Your task to perform on an android device: open app "HBO Max: Stream TV & Movies" (install if not already installed) and go to login screen Image 0: 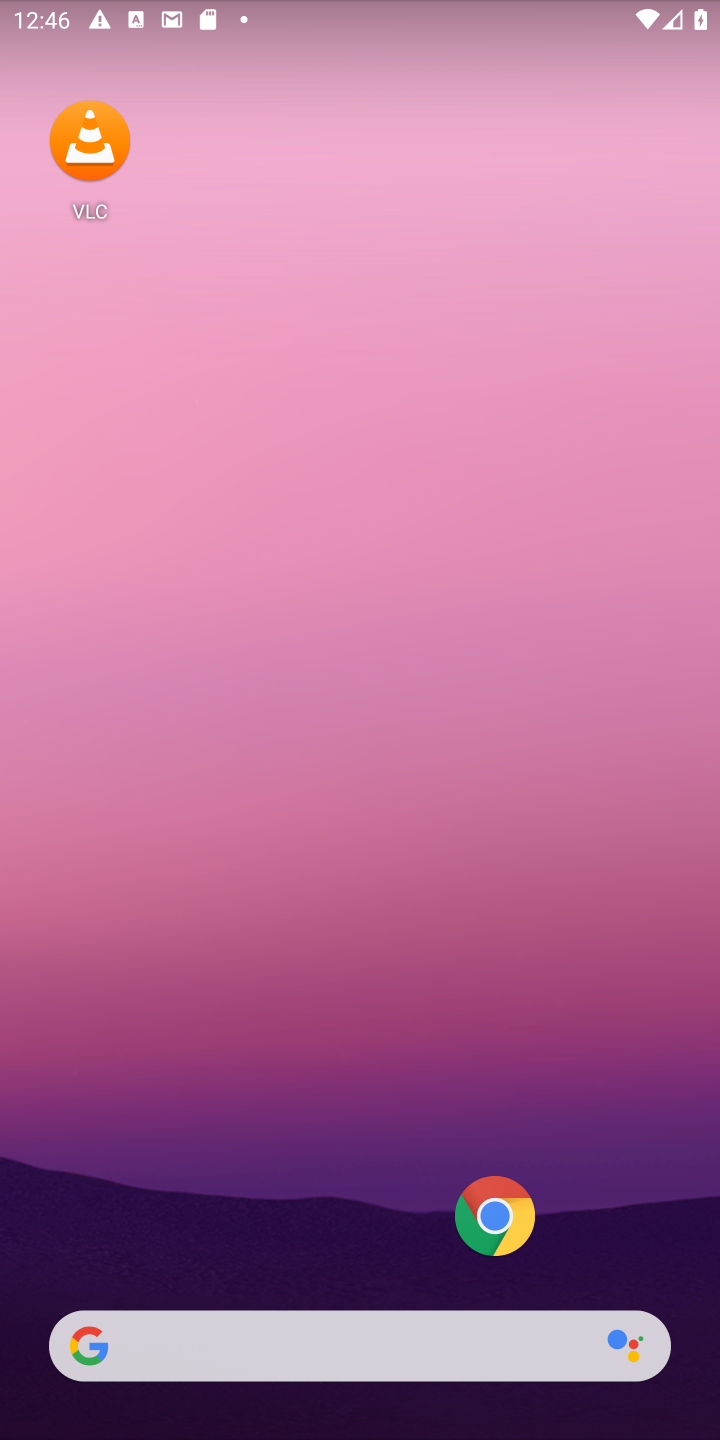
Step 0: drag from (241, 1330) to (711, 668)
Your task to perform on an android device: open app "HBO Max: Stream TV & Movies" (install if not already installed) and go to login screen Image 1: 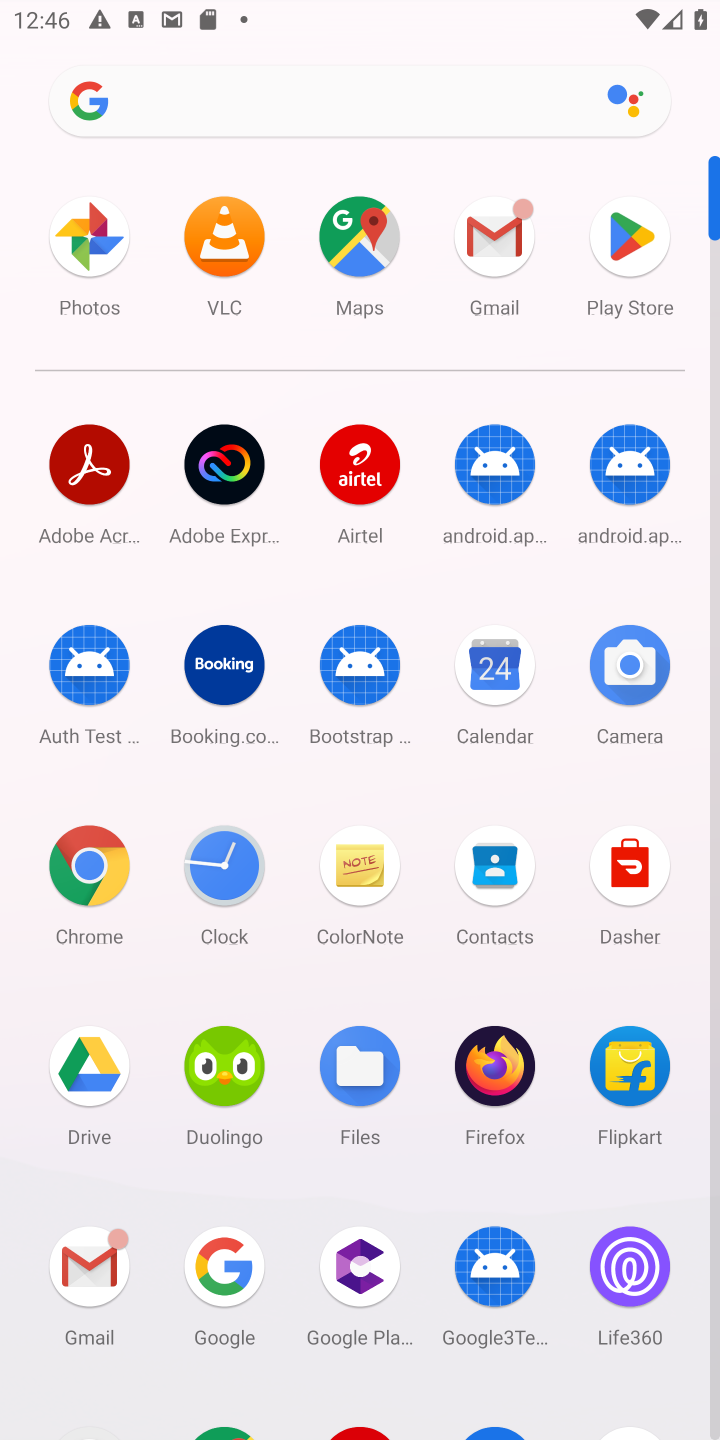
Step 1: click (624, 251)
Your task to perform on an android device: open app "HBO Max: Stream TV & Movies" (install if not already installed) and go to login screen Image 2: 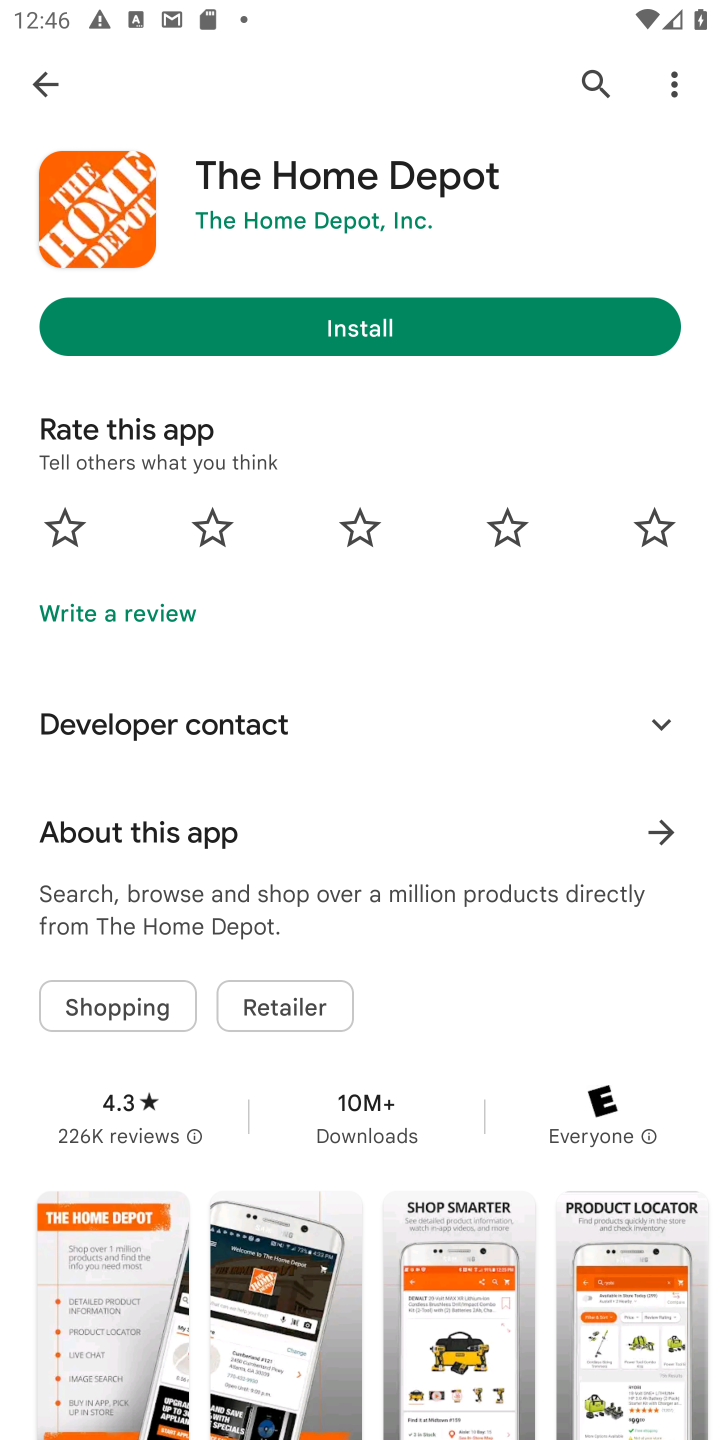
Step 2: press back button
Your task to perform on an android device: open app "HBO Max: Stream TV & Movies" (install if not already installed) and go to login screen Image 3: 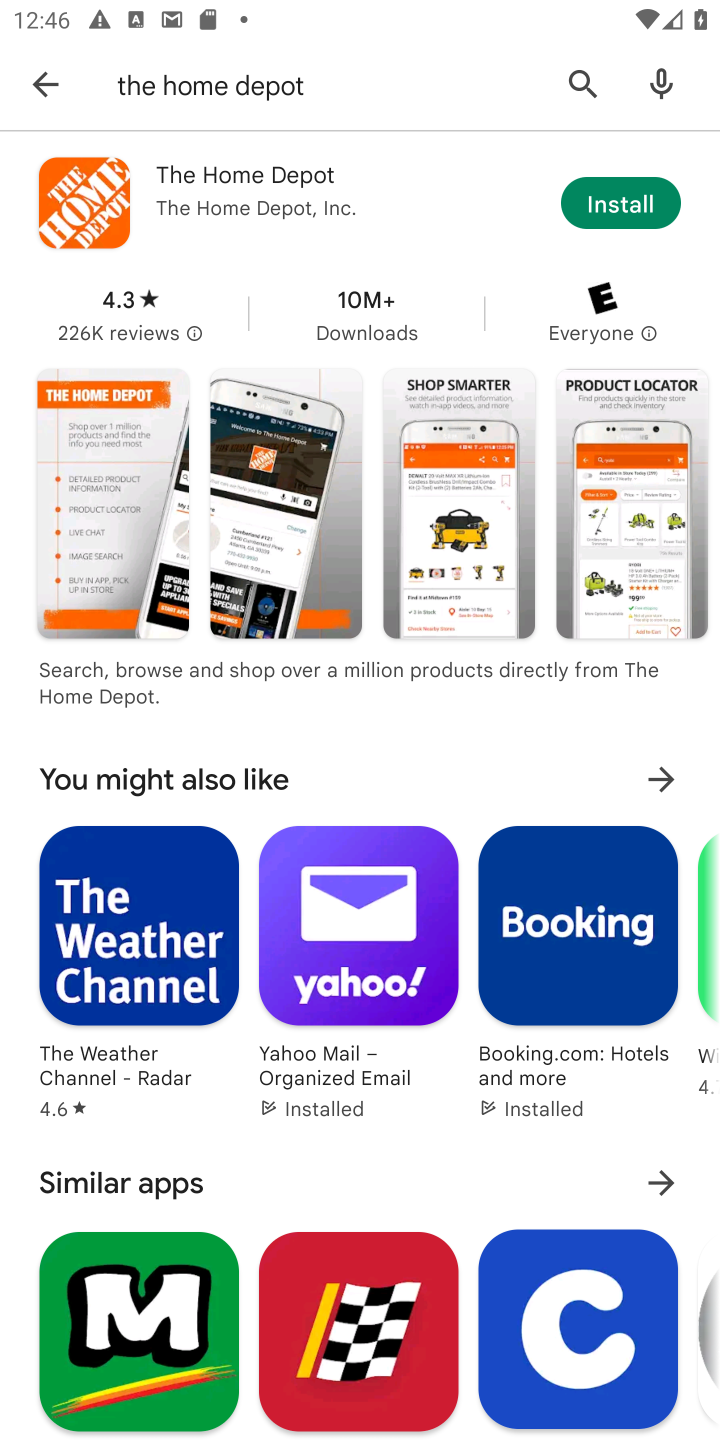
Step 3: press back button
Your task to perform on an android device: open app "HBO Max: Stream TV & Movies" (install if not already installed) and go to login screen Image 4: 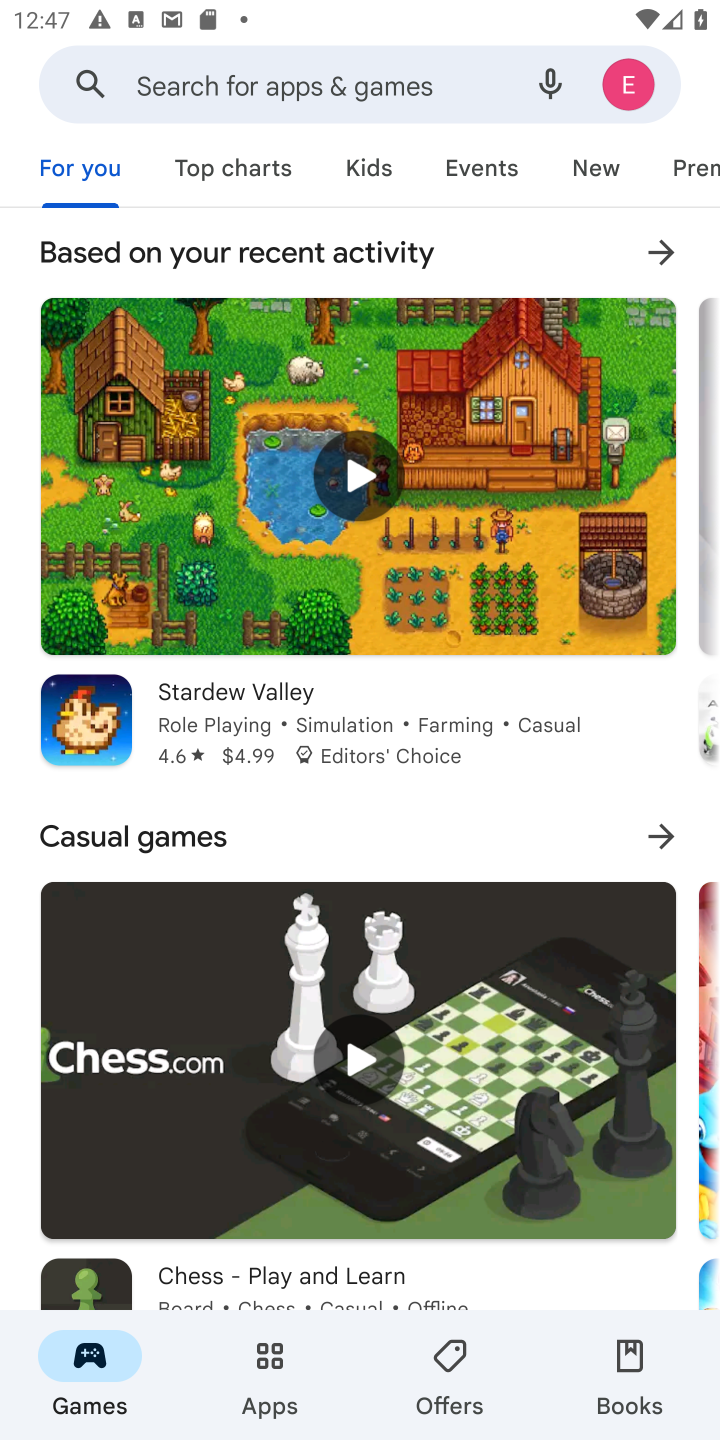
Step 4: click (369, 90)
Your task to perform on an android device: open app "HBO Max: Stream TV & Movies" (install if not already installed) and go to login screen Image 5: 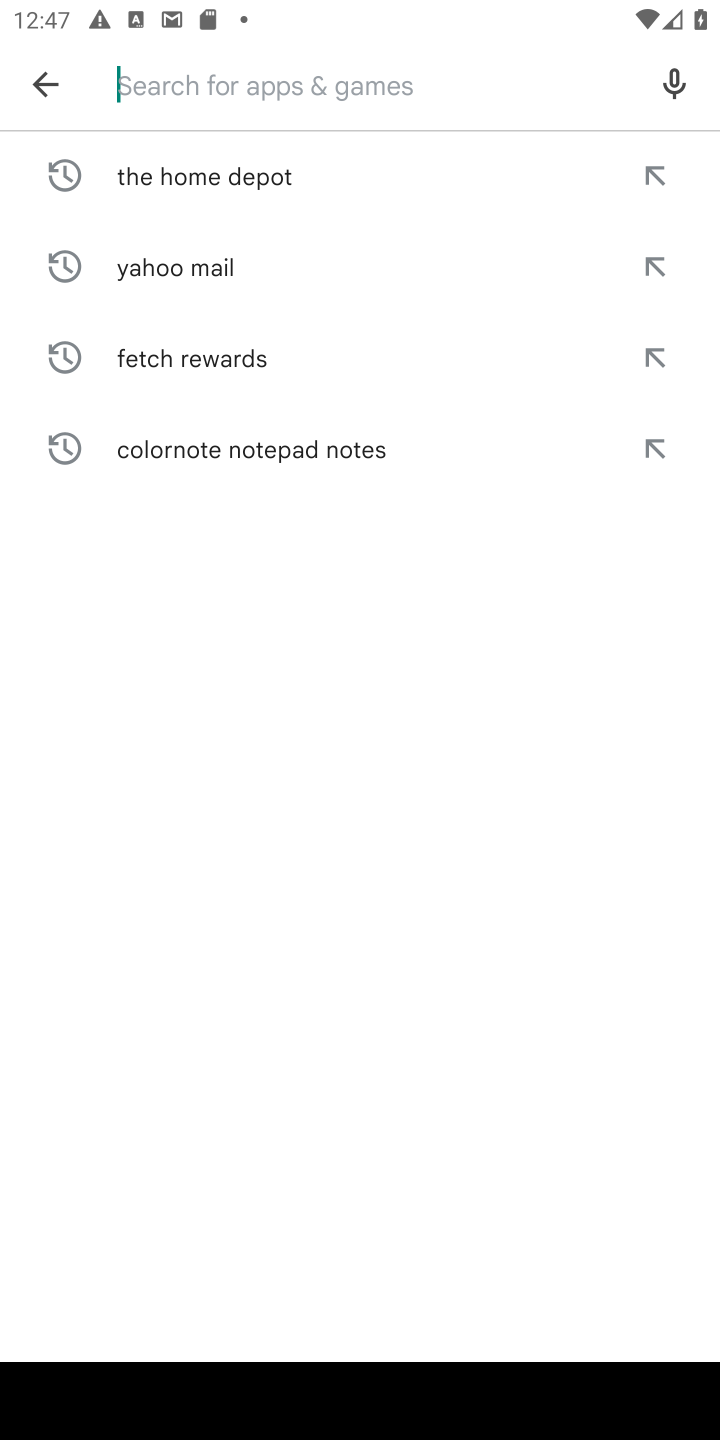
Step 5: click (243, 96)
Your task to perform on an android device: open app "HBO Max: Stream TV & Movies" (install if not already installed) and go to login screen Image 6: 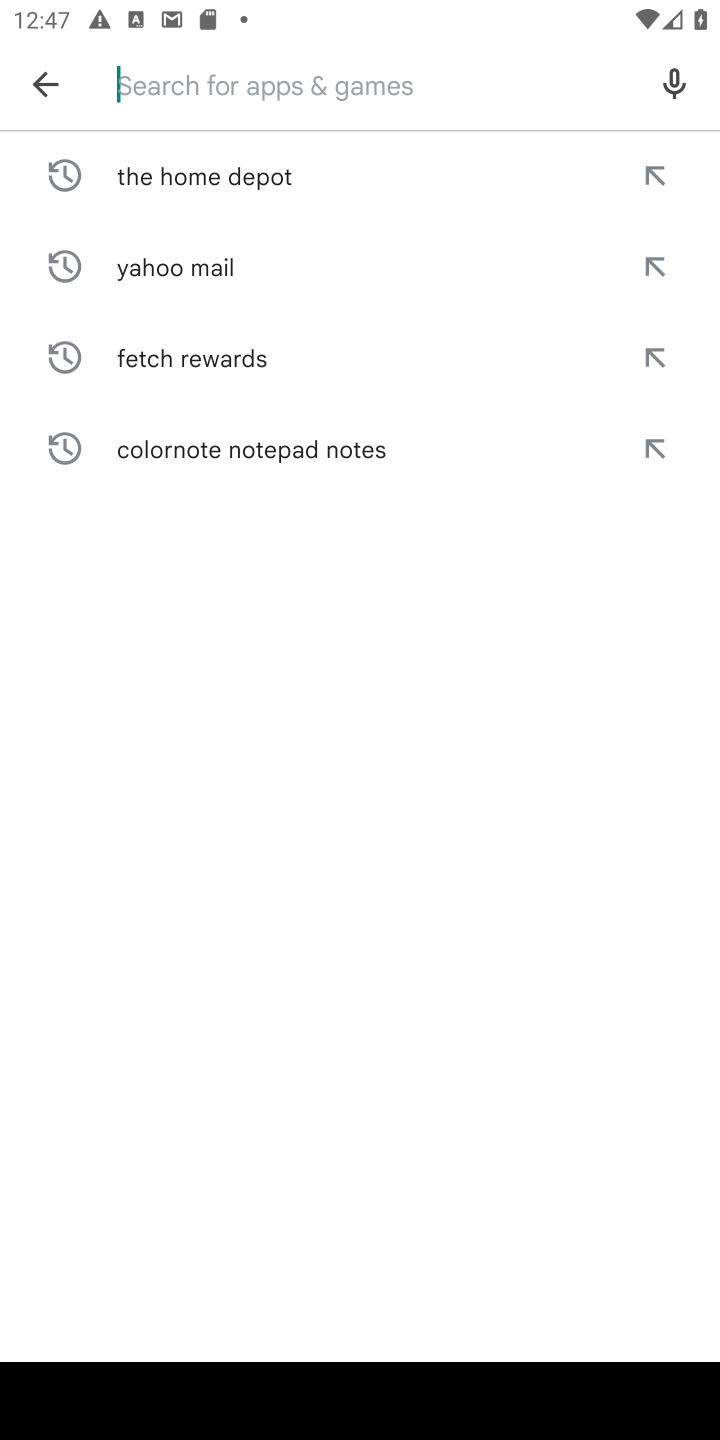
Step 6: type "HBO Max: Stream TV & Movies"
Your task to perform on an android device: open app "HBO Max: Stream TV & Movies" (install if not already installed) and go to login screen Image 7: 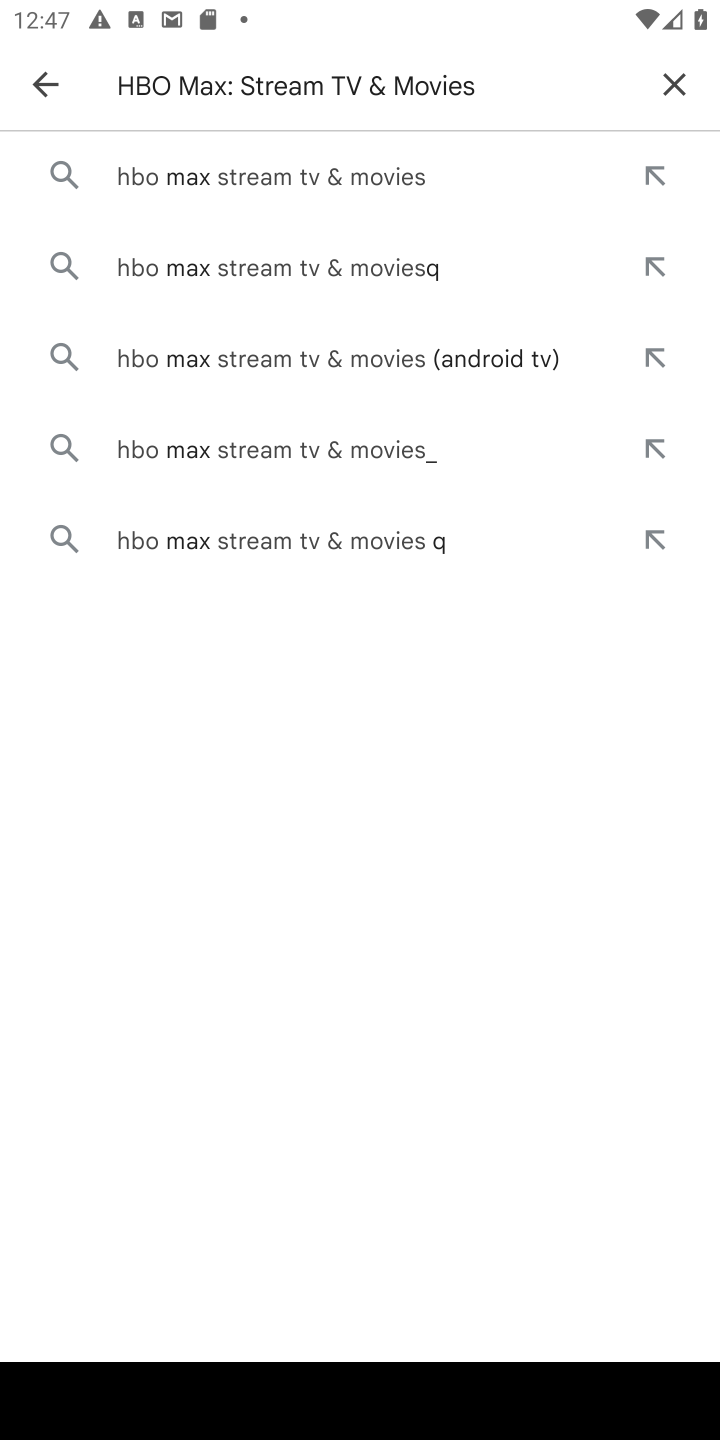
Step 7: click (309, 178)
Your task to perform on an android device: open app "HBO Max: Stream TV & Movies" (install if not already installed) and go to login screen Image 8: 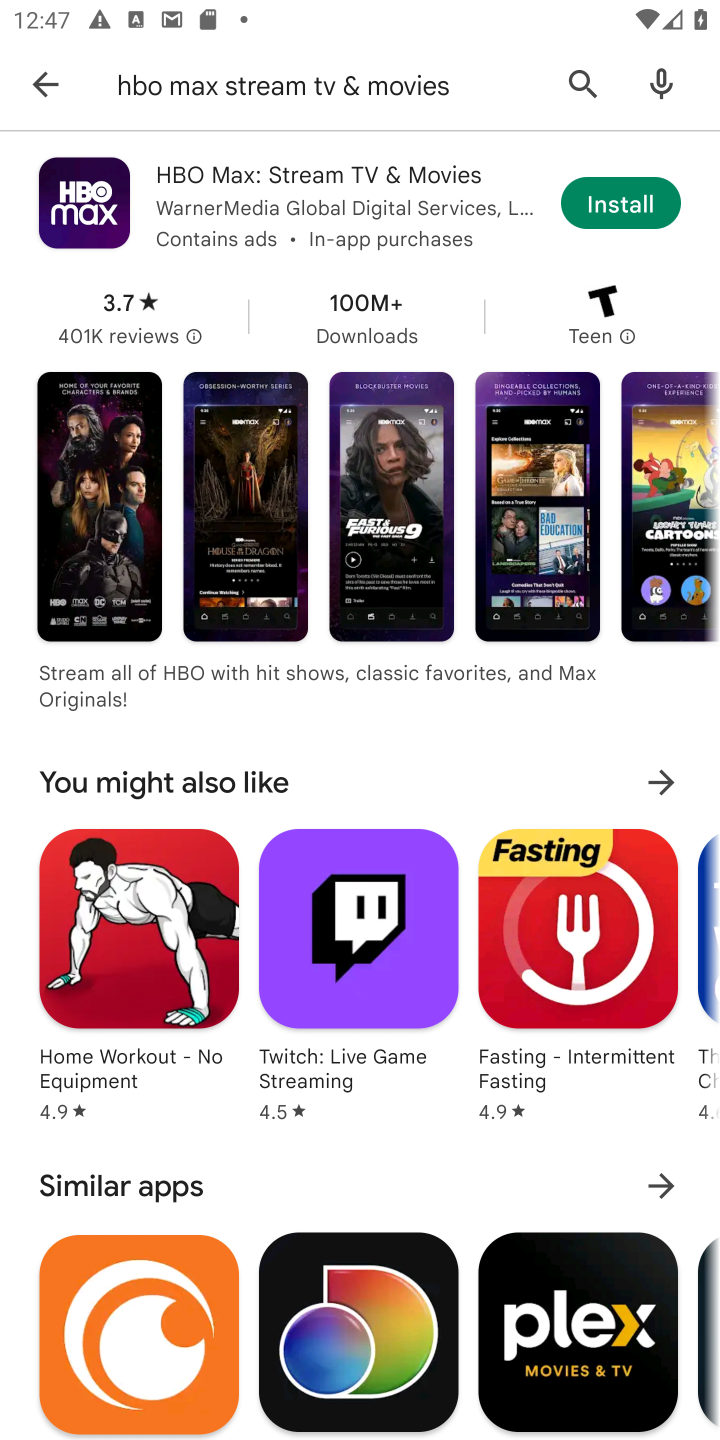
Step 8: click (611, 223)
Your task to perform on an android device: open app "HBO Max: Stream TV & Movies" (install if not already installed) and go to login screen Image 9: 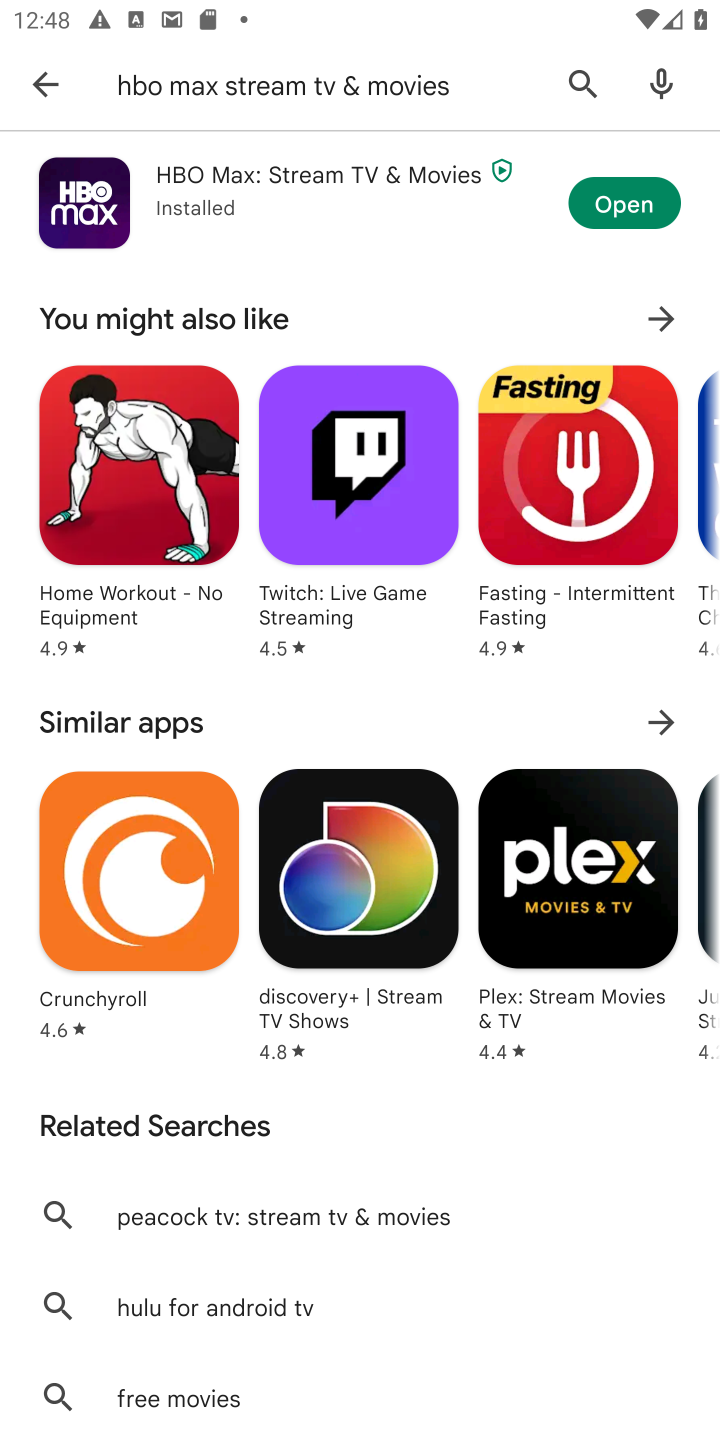
Step 9: click (611, 223)
Your task to perform on an android device: open app "HBO Max: Stream TV & Movies" (install if not already installed) and go to login screen Image 10: 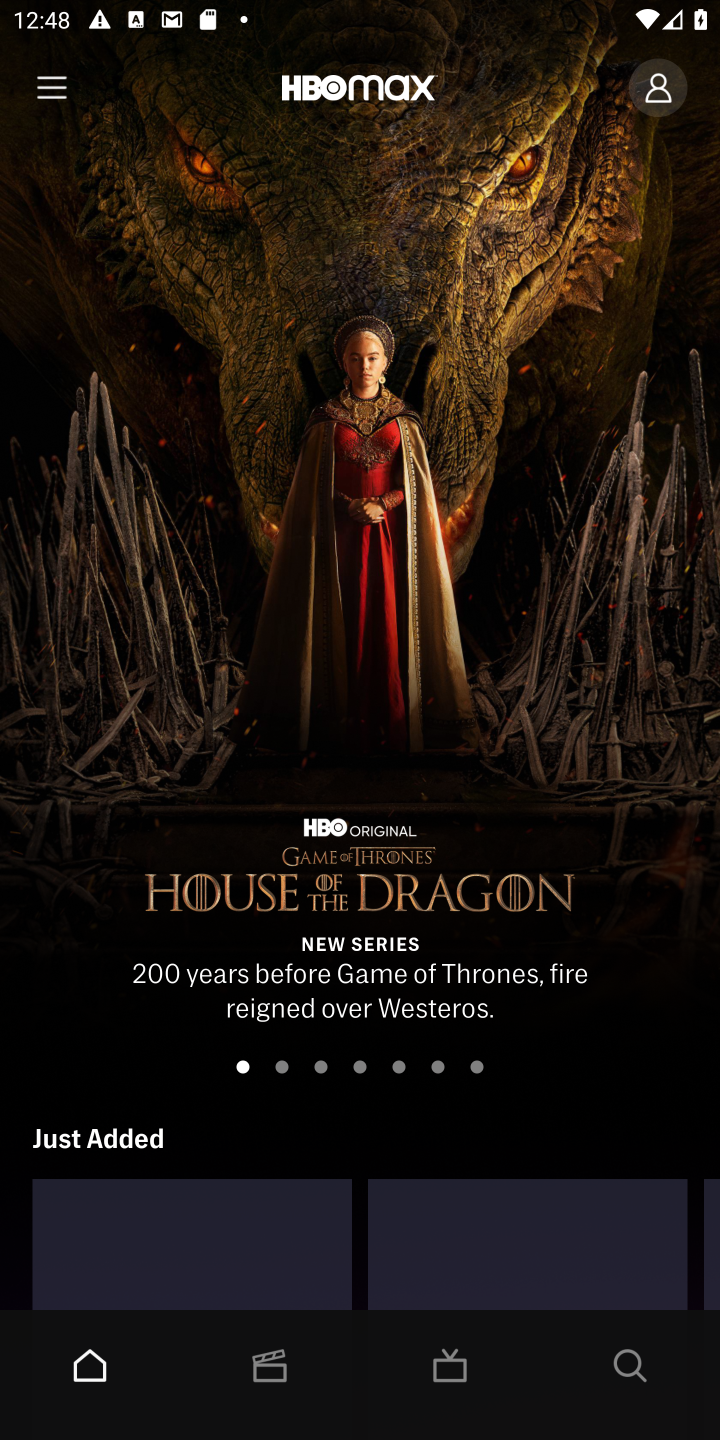
Step 10: click (656, 99)
Your task to perform on an android device: open app "HBO Max: Stream TV & Movies" (install if not already installed) and go to login screen Image 11: 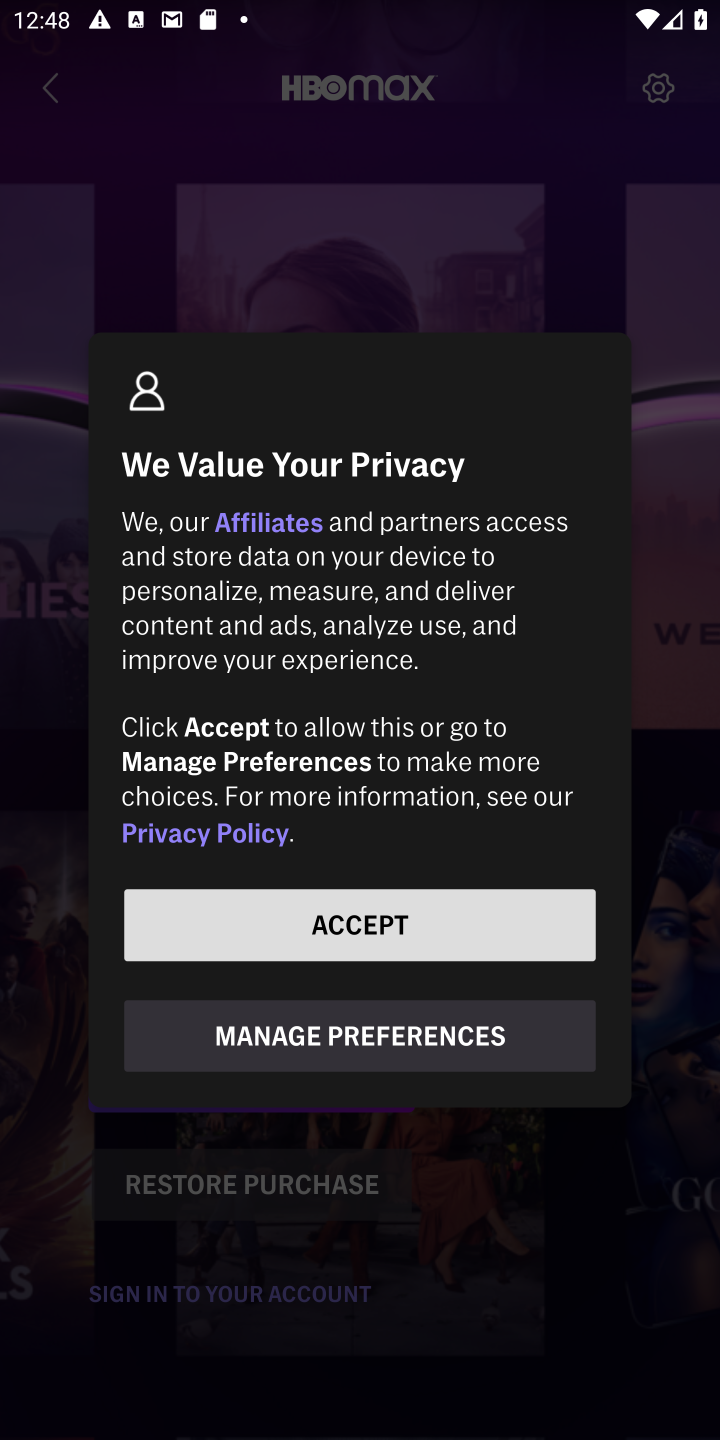
Step 11: click (333, 918)
Your task to perform on an android device: open app "HBO Max: Stream TV & Movies" (install if not already installed) and go to login screen Image 12: 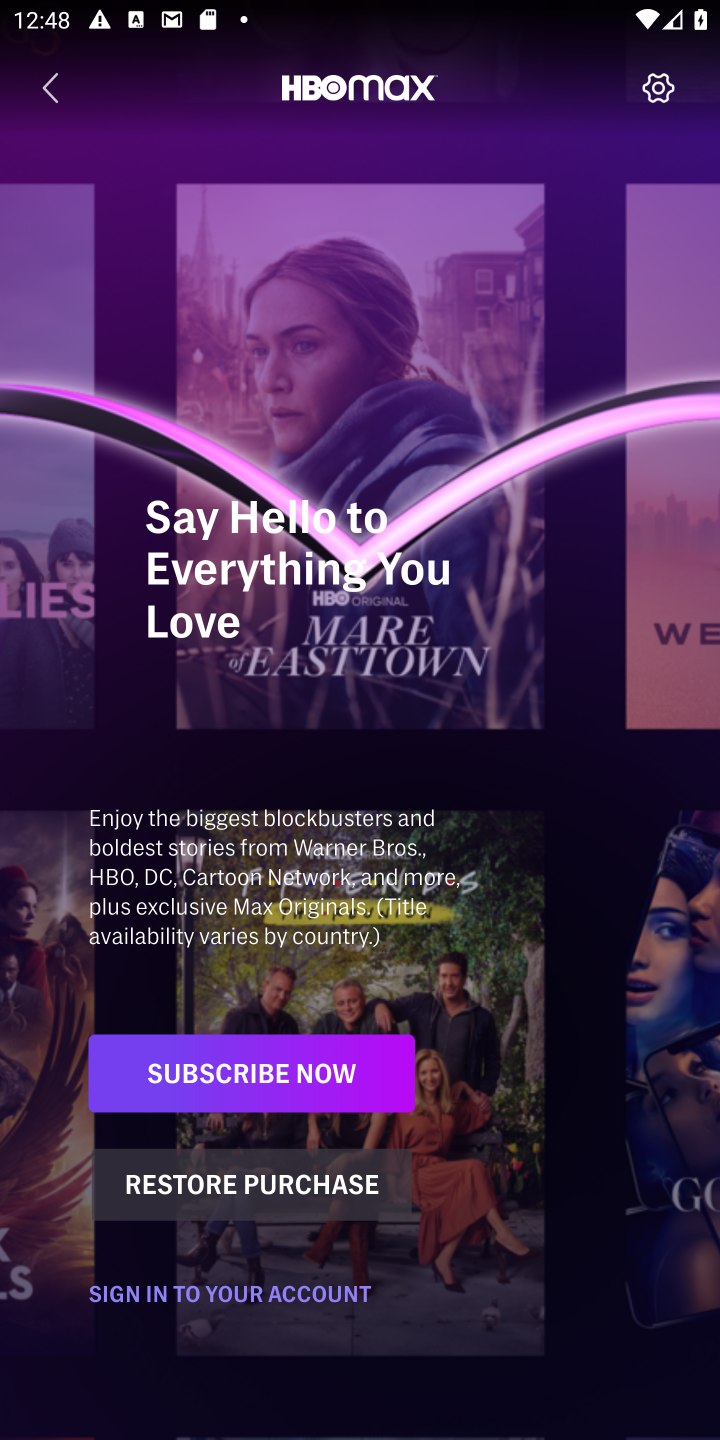
Step 12: click (215, 1292)
Your task to perform on an android device: open app "HBO Max: Stream TV & Movies" (install if not already installed) and go to login screen Image 13: 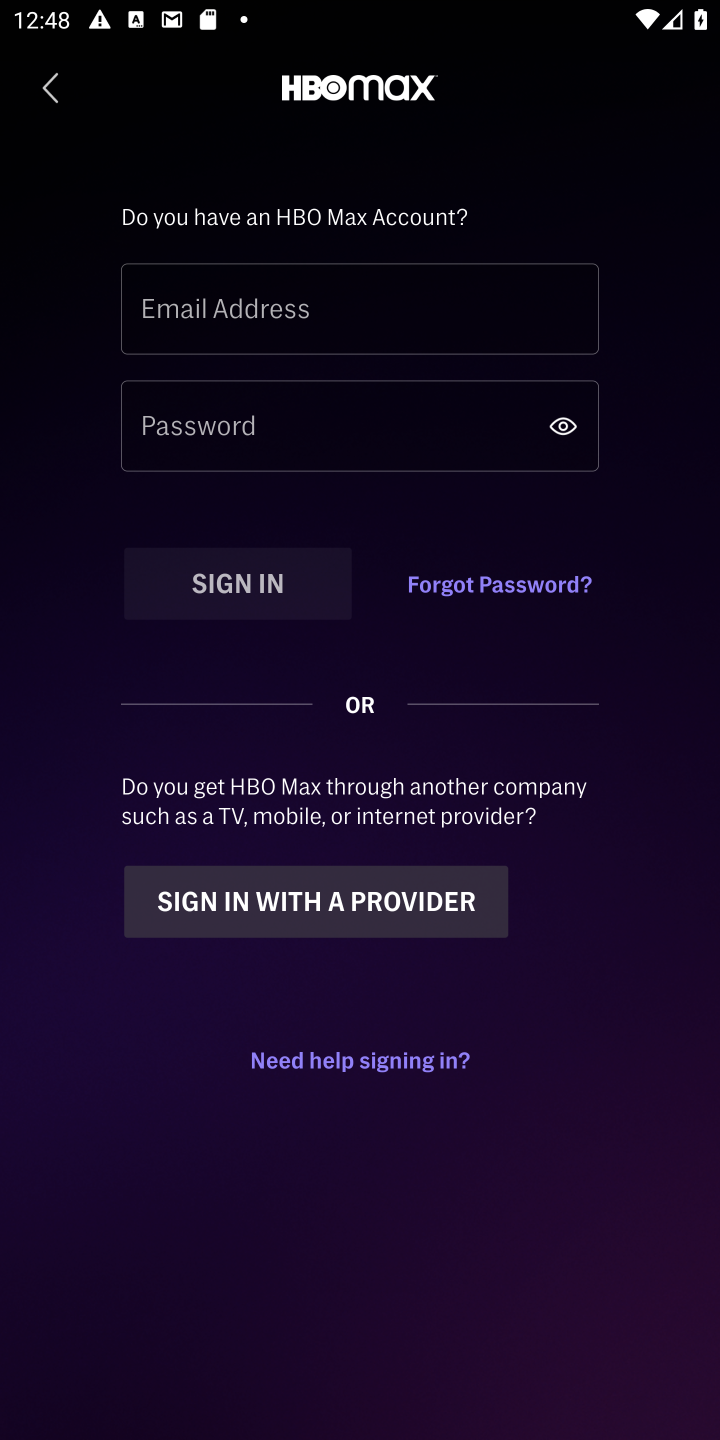
Step 13: task complete